Your task to perform on an android device: open app "Gboard" Image 0: 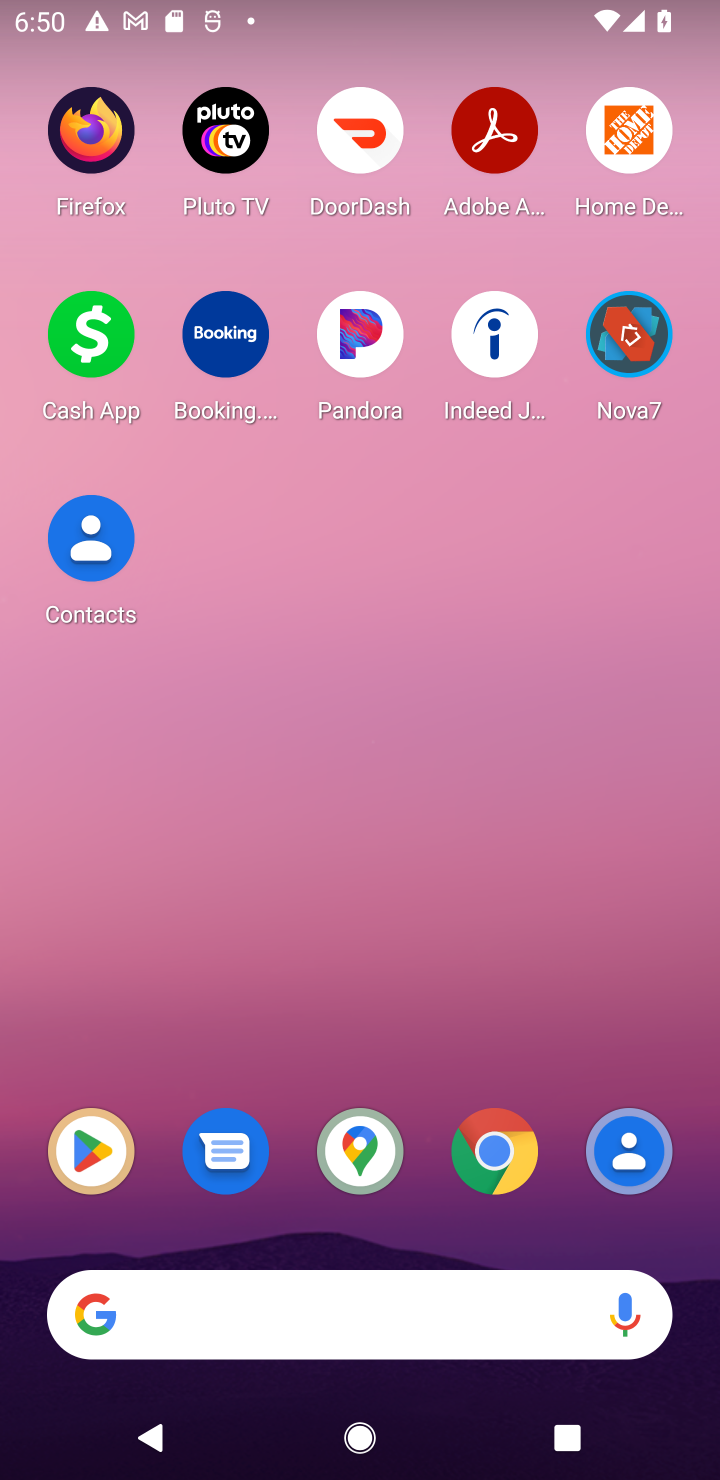
Step 0: click (238, 274)
Your task to perform on an android device: open app "Gboard" Image 1: 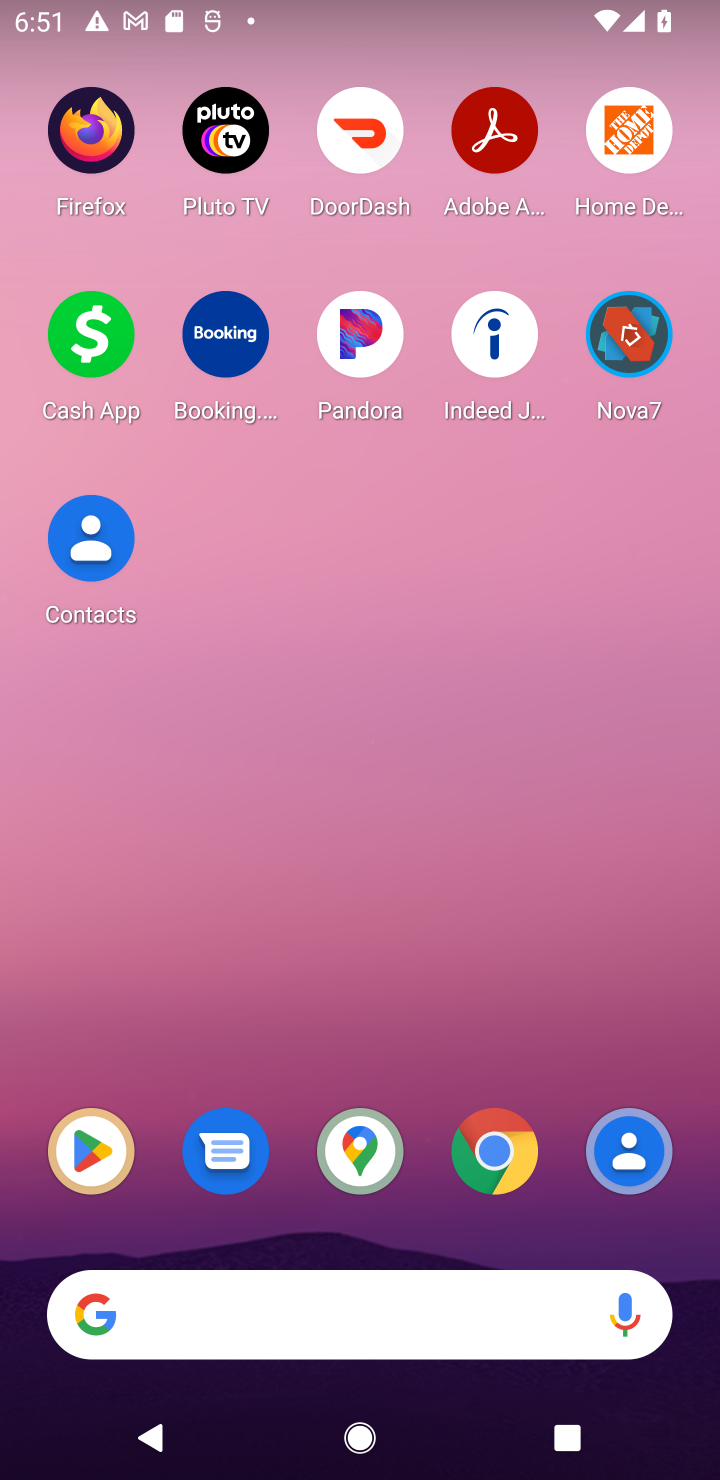
Step 1: drag from (432, 632) to (442, 449)
Your task to perform on an android device: open app "Gboard" Image 2: 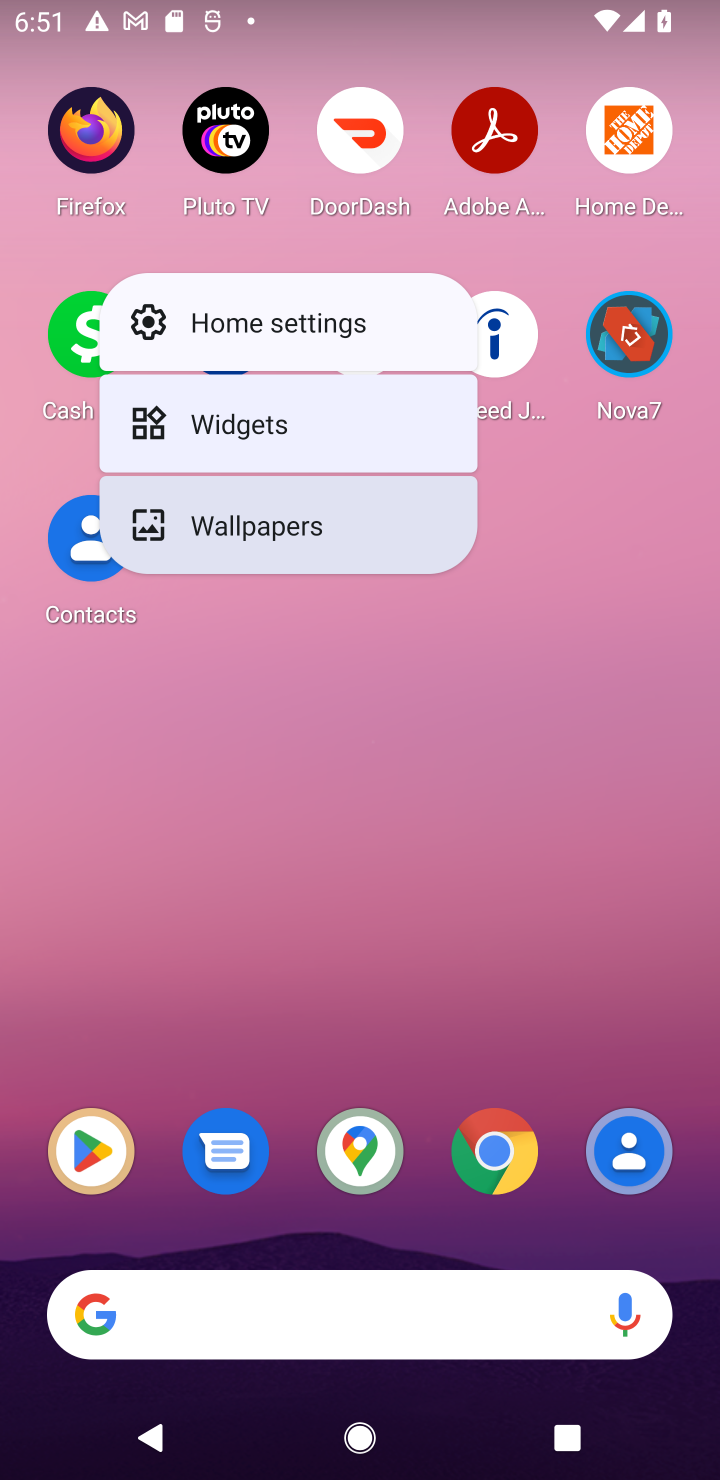
Step 2: click (259, 930)
Your task to perform on an android device: open app "Gboard" Image 3: 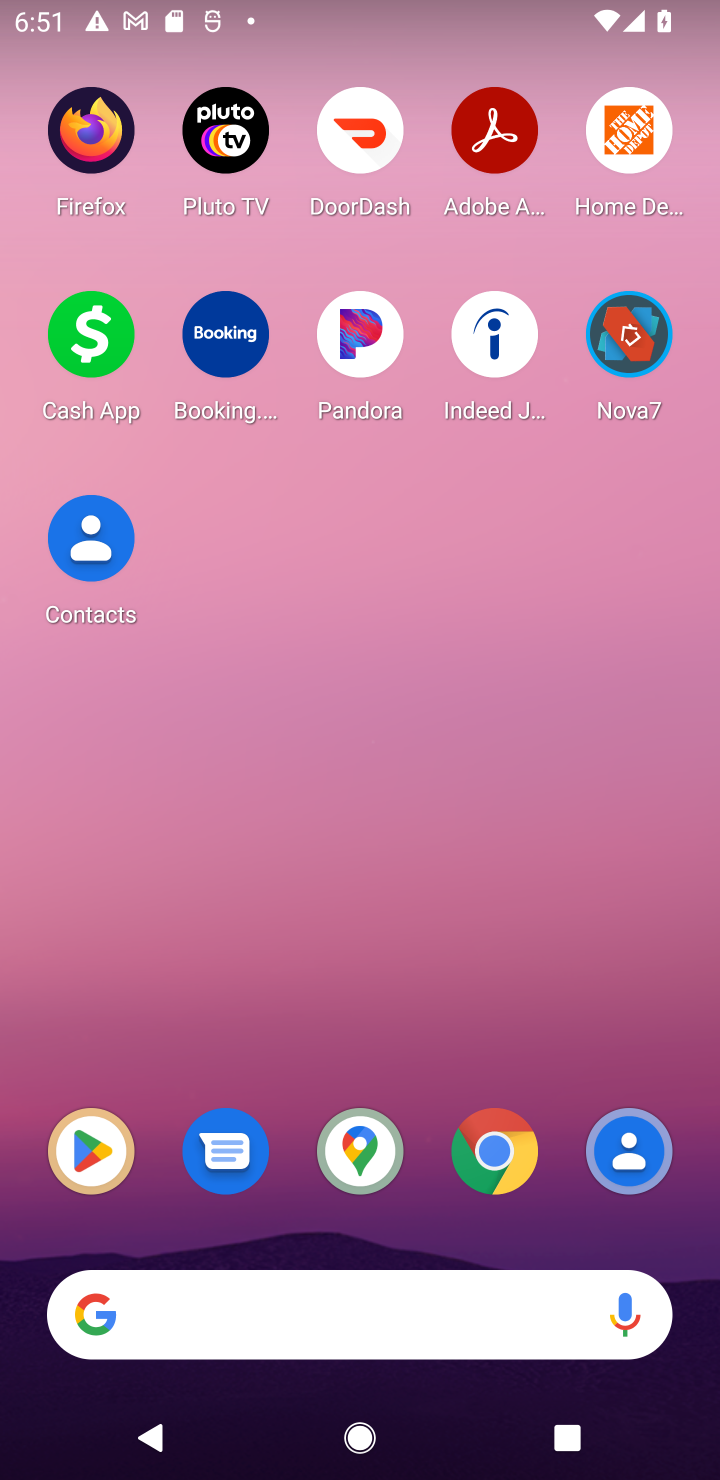
Step 3: click (413, 736)
Your task to perform on an android device: open app "Gboard" Image 4: 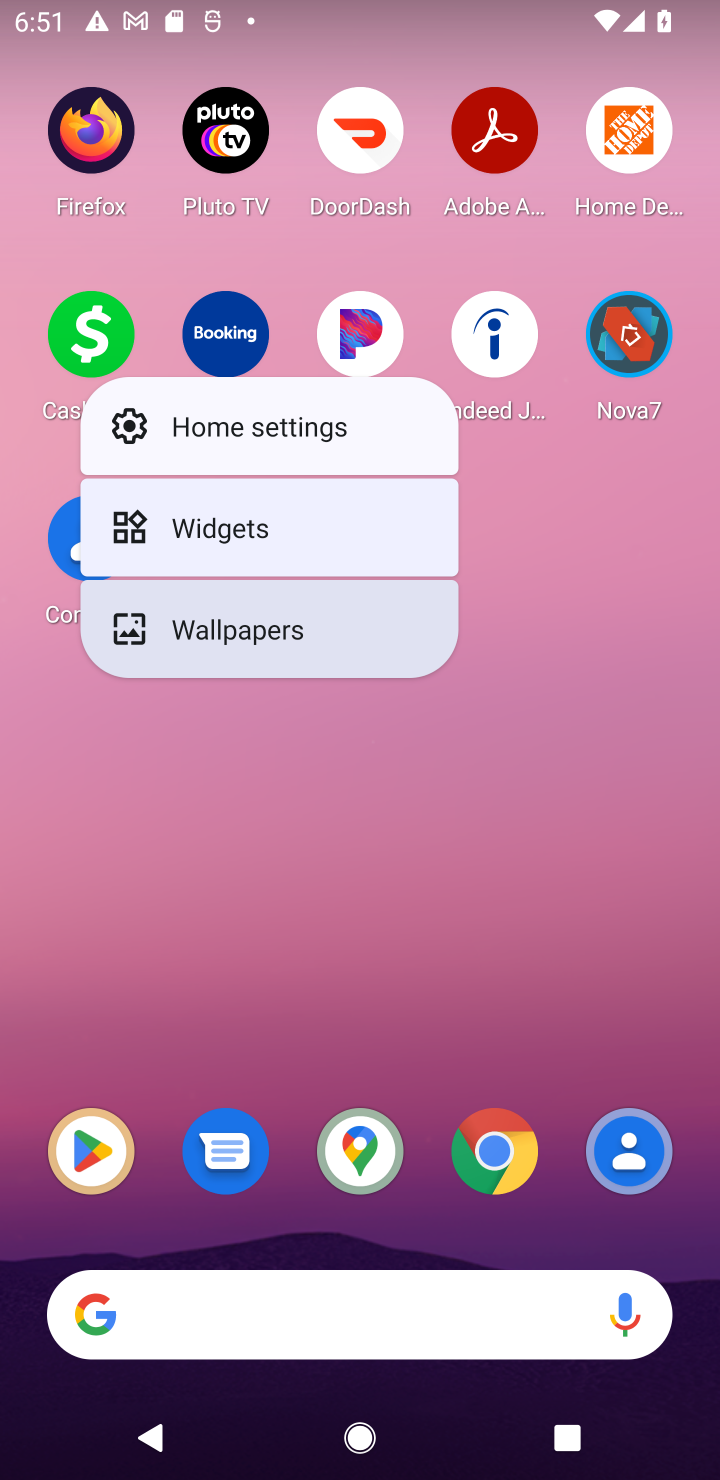
Step 4: click (394, 1101)
Your task to perform on an android device: open app "Gboard" Image 5: 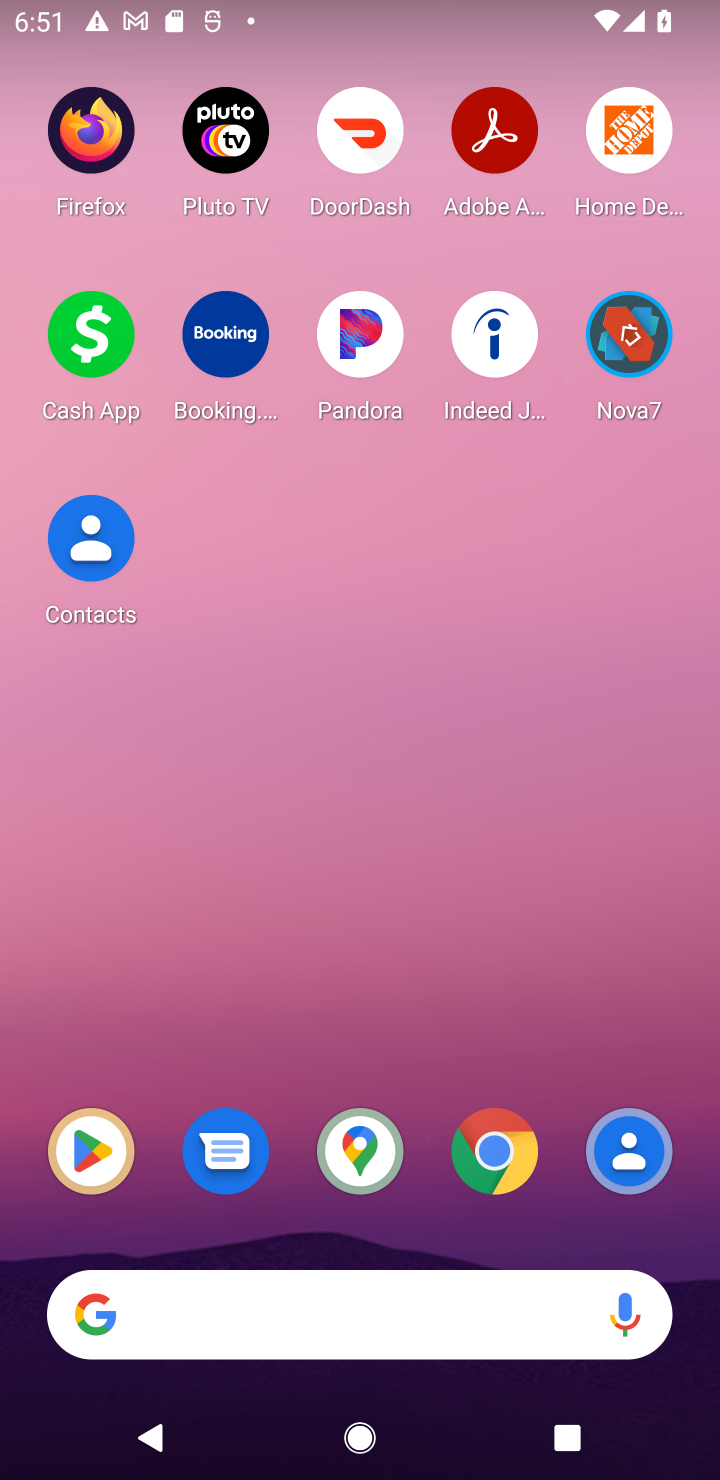
Step 5: drag from (419, 1047) to (338, 41)
Your task to perform on an android device: open app "Gboard" Image 6: 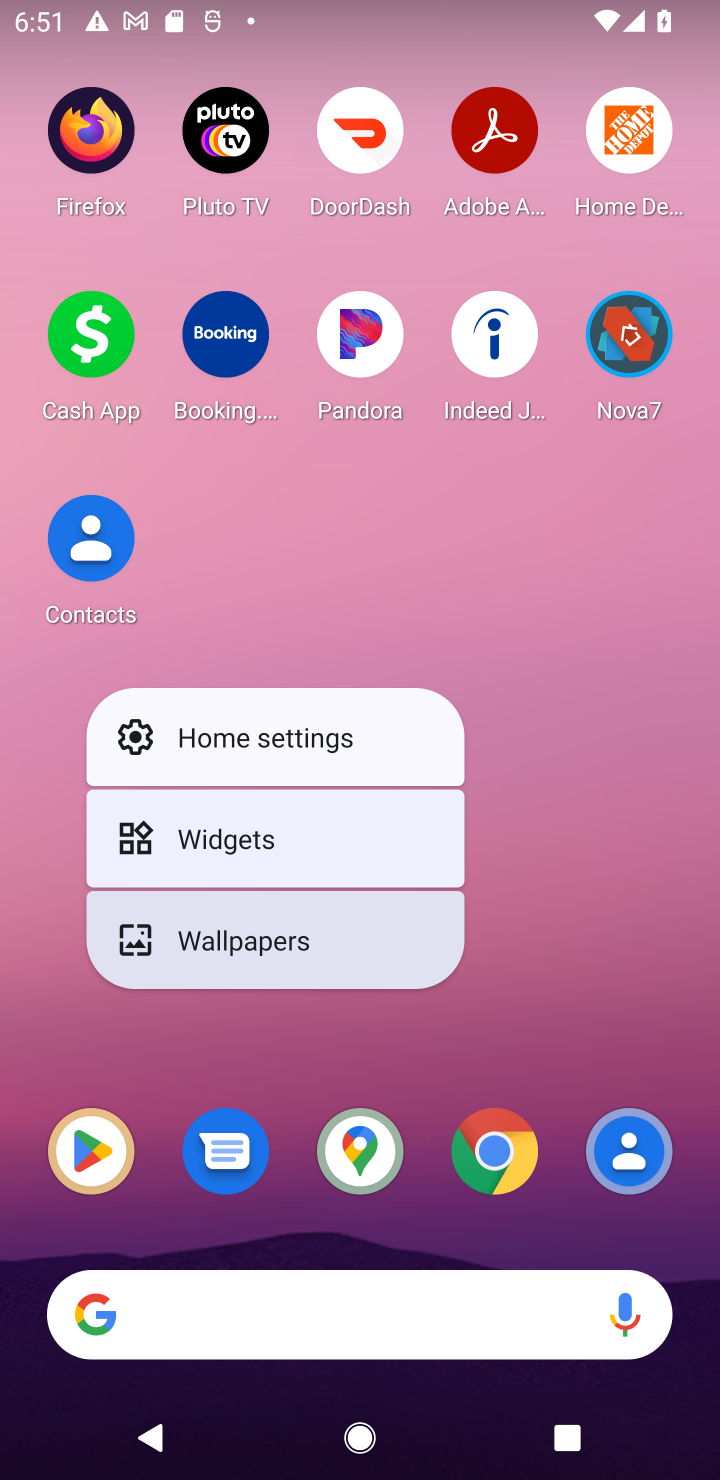
Step 6: click (618, 887)
Your task to perform on an android device: open app "Gboard" Image 7: 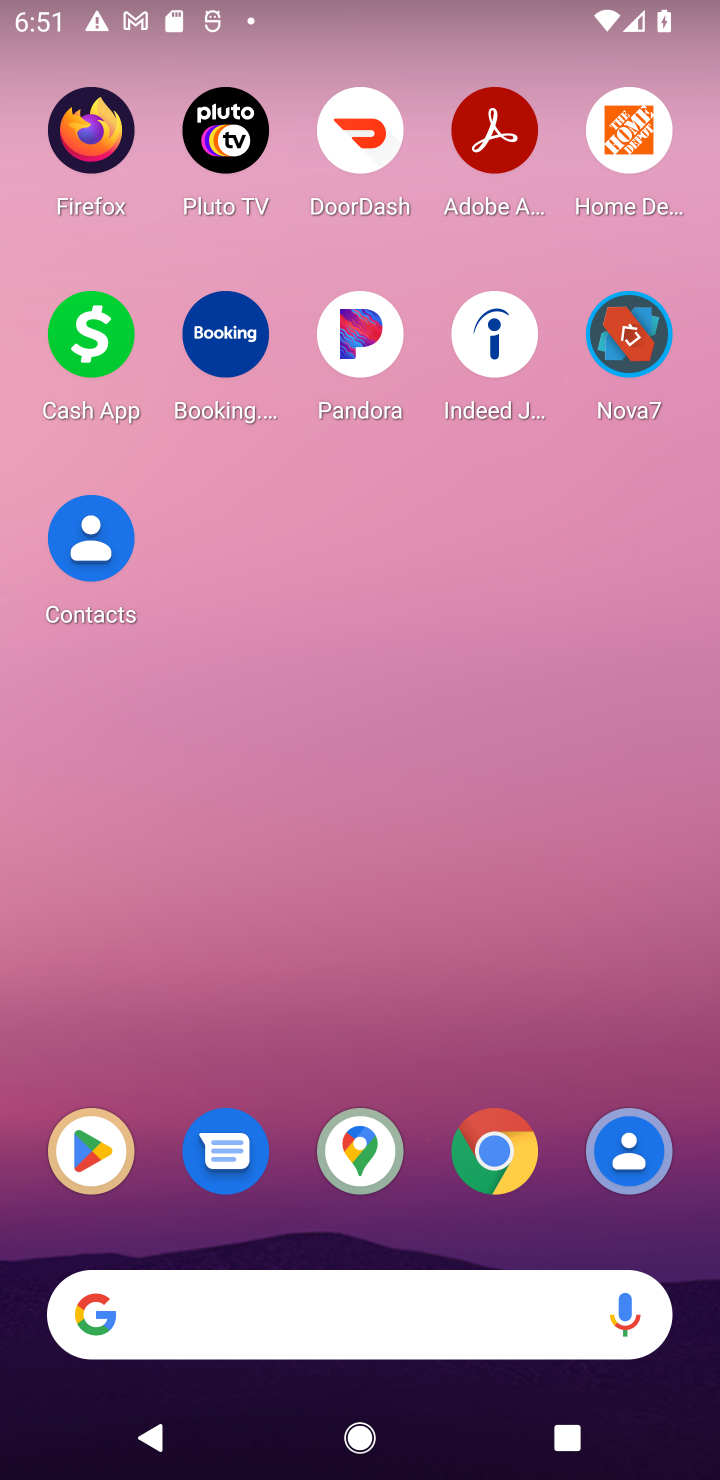
Step 7: drag from (314, 1240) to (230, 365)
Your task to perform on an android device: open app "Gboard" Image 8: 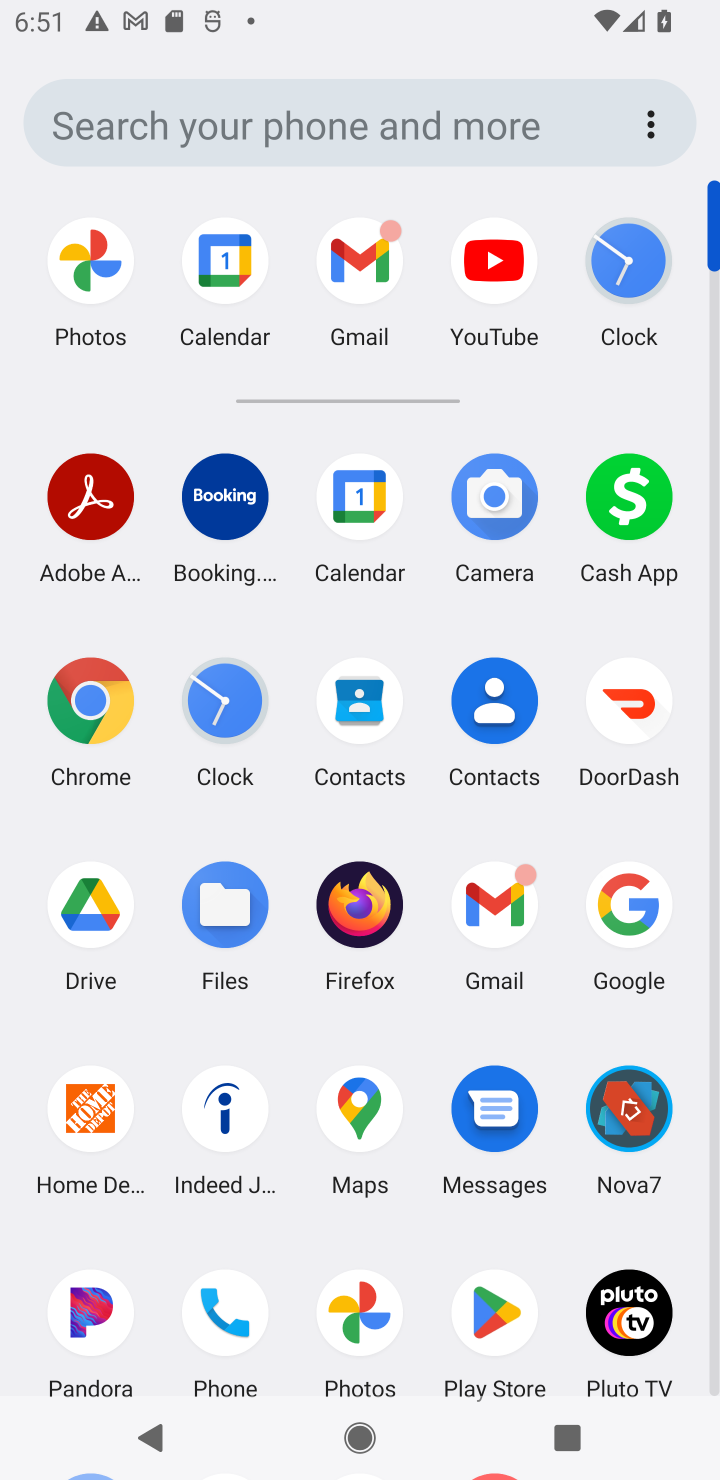
Step 8: click (506, 1321)
Your task to perform on an android device: open app "Gboard" Image 9: 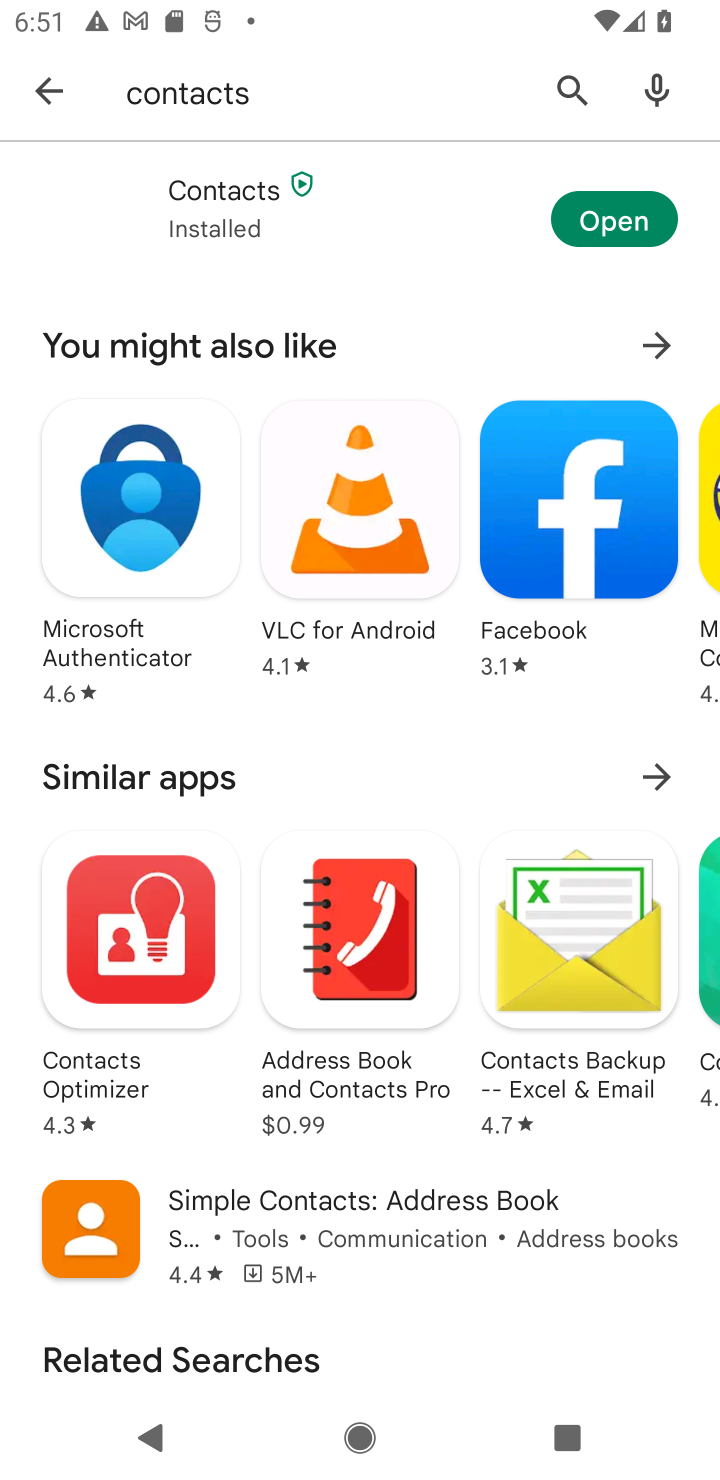
Step 9: click (555, 76)
Your task to perform on an android device: open app "Gboard" Image 10: 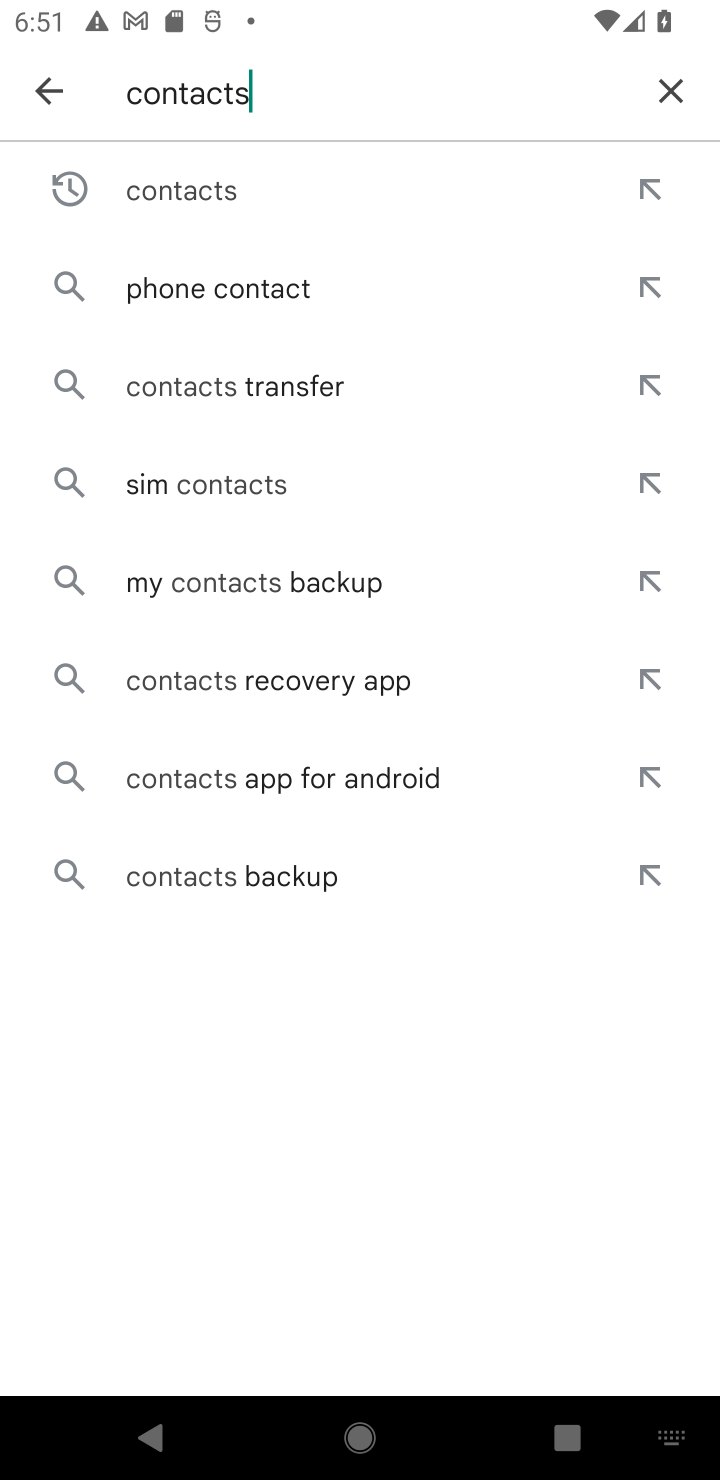
Step 10: click (664, 94)
Your task to perform on an android device: open app "Gboard" Image 11: 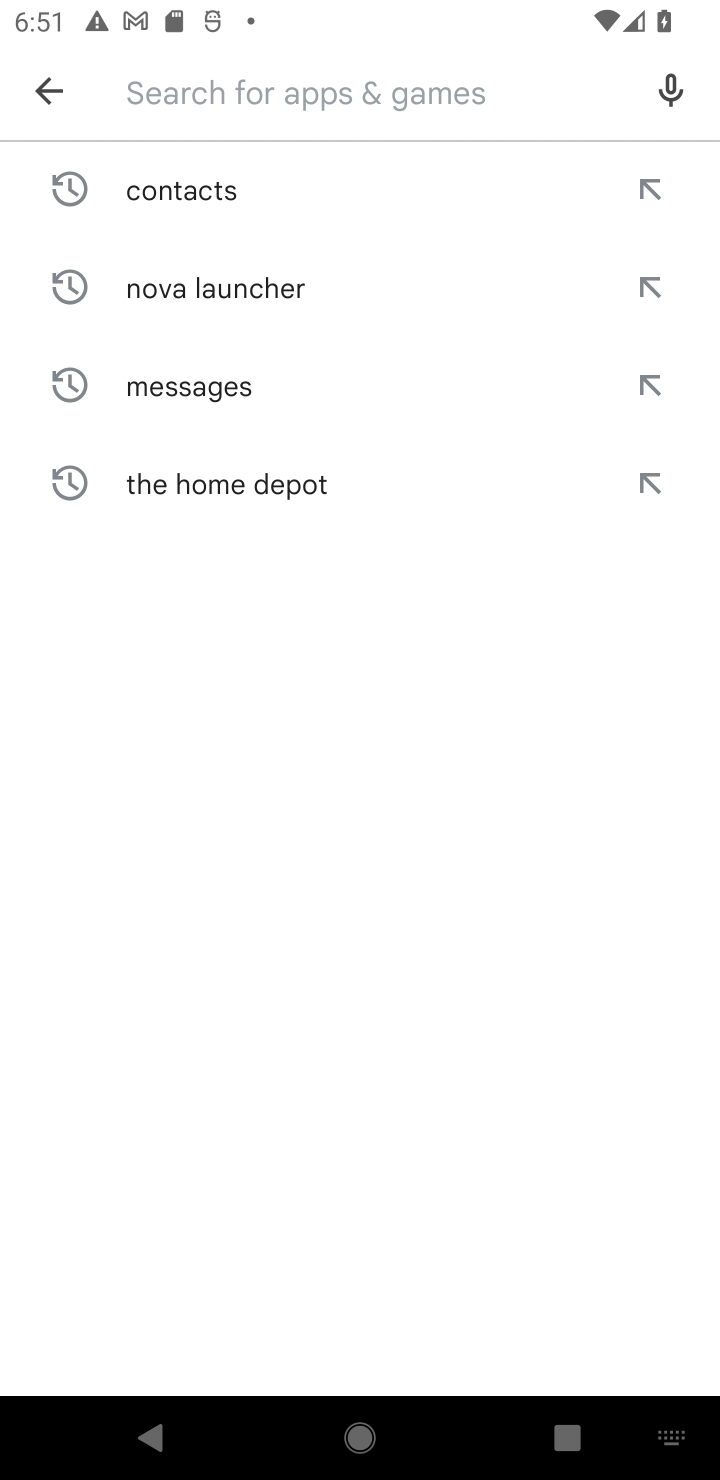
Step 11: type "gboard"
Your task to perform on an android device: open app "Gboard" Image 12: 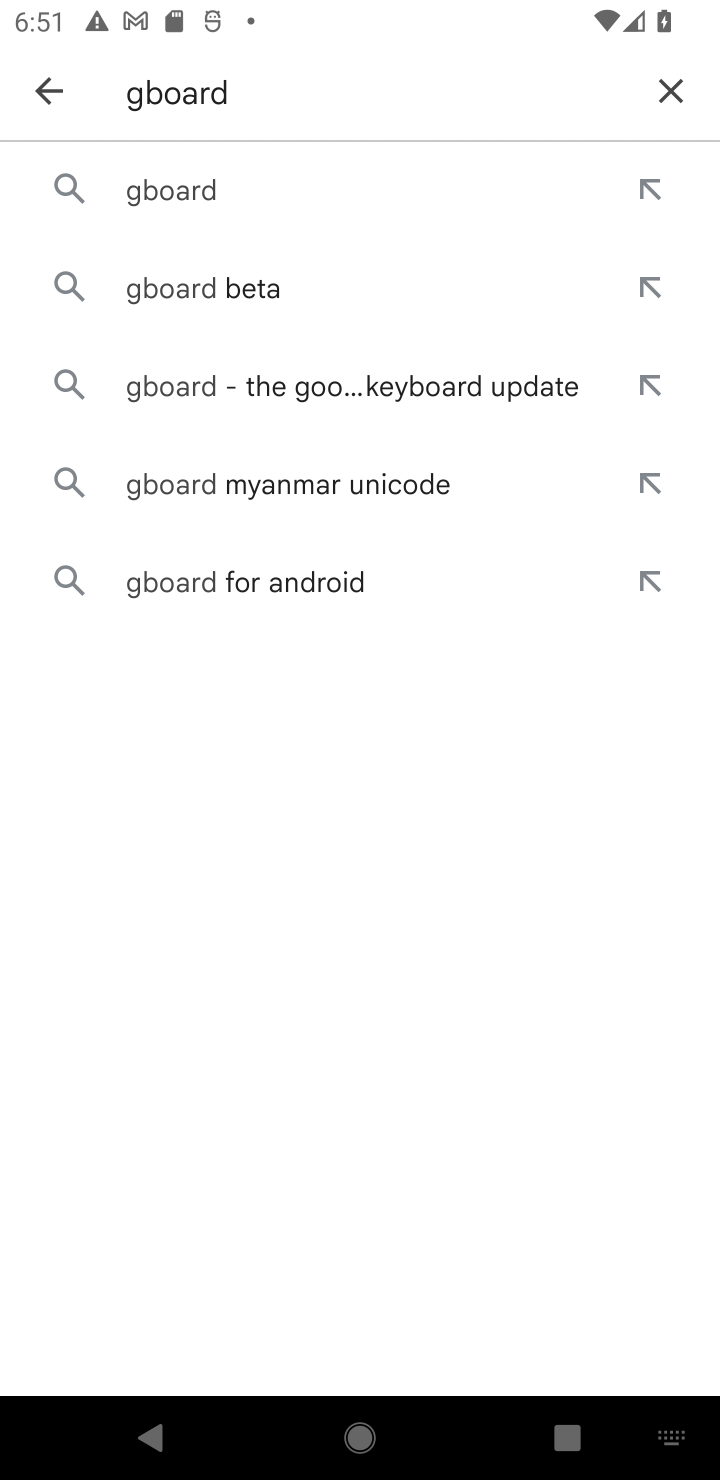
Step 12: click (214, 198)
Your task to perform on an android device: open app "Gboard" Image 13: 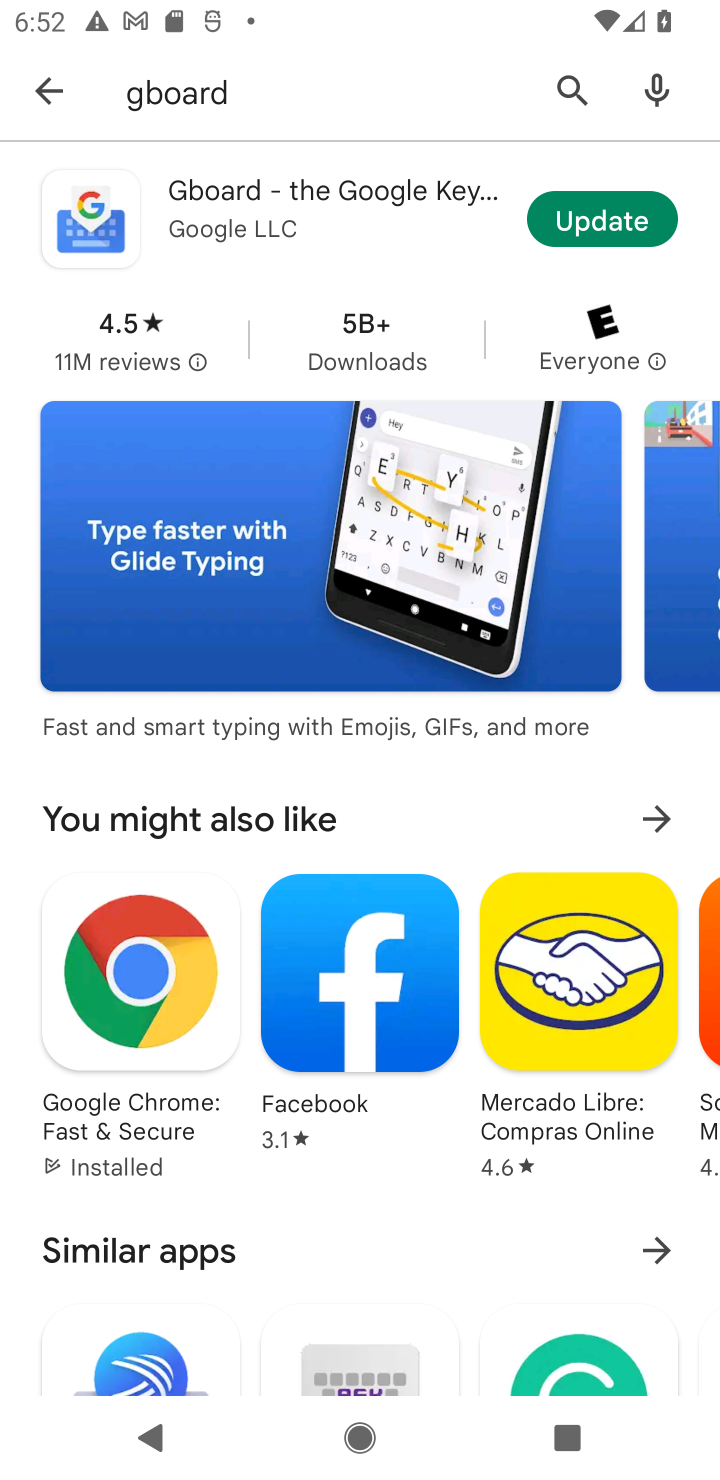
Step 13: task complete